Your task to perform on an android device: What's on my calendar today? Image 0: 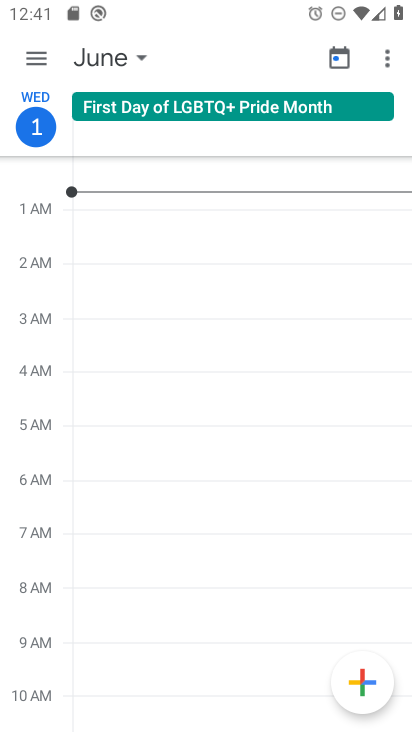
Step 0: press home button
Your task to perform on an android device: What's on my calendar today? Image 1: 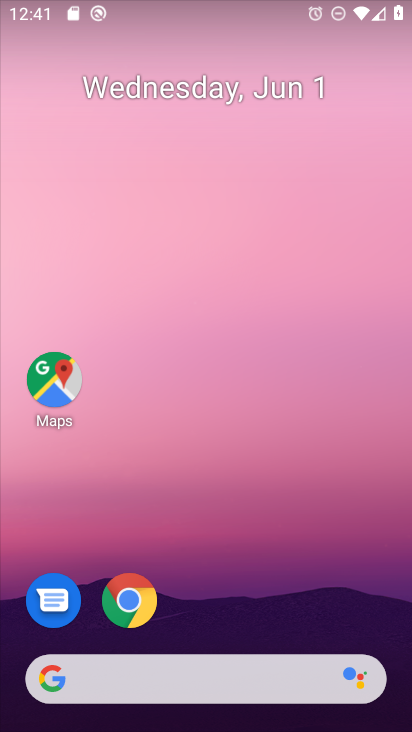
Step 1: drag from (220, 630) to (223, 57)
Your task to perform on an android device: What's on my calendar today? Image 2: 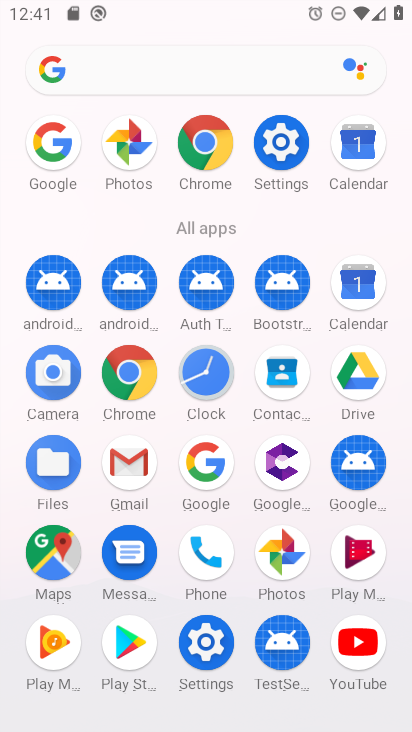
Step 2: click (355, 279)
Your task to perform on an android device: What's on my calendar today? Image 3: 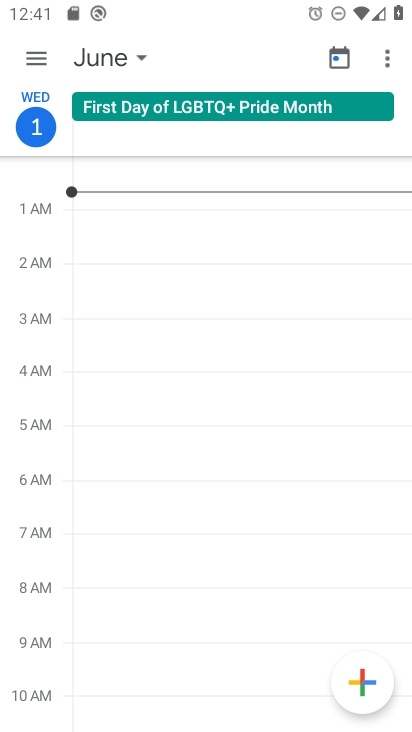
Step 3: click (29, 55)
Your task to perform on an android device: What's on my calendar today? Image 4: 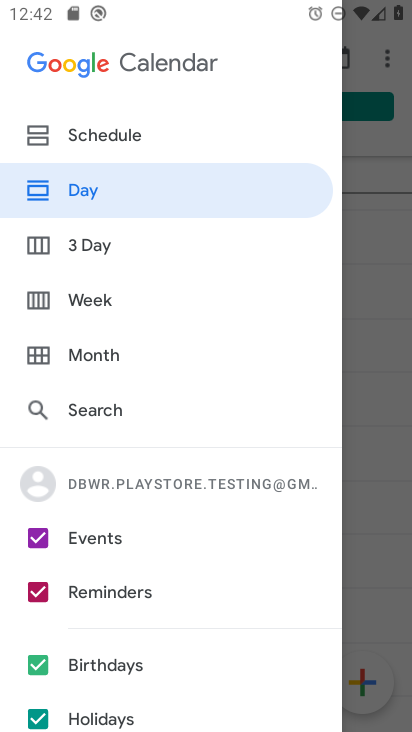
Step 4: click (106, 178)
Your task to perform on an android device: What's on my calendar today? Image 5: 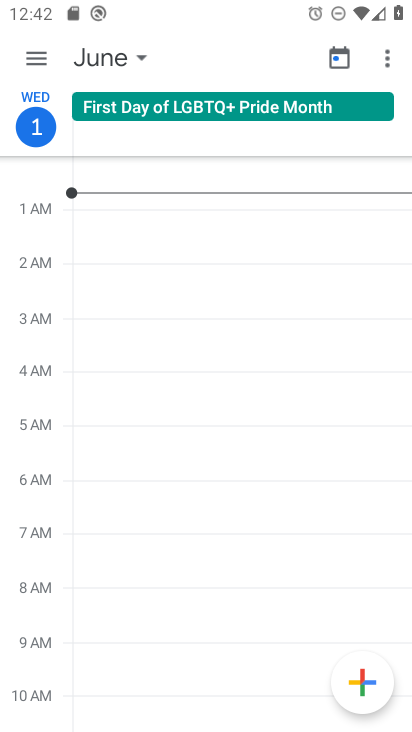
Step 5: task complete